Your task to perform on an android device: Go to Maps Image 0: 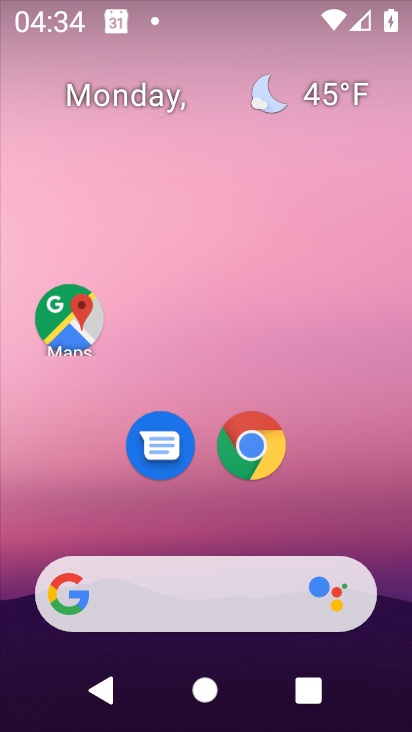
Step 0: click (82, 343)
Your task to perform on an android device: Go to Maps Image 1: 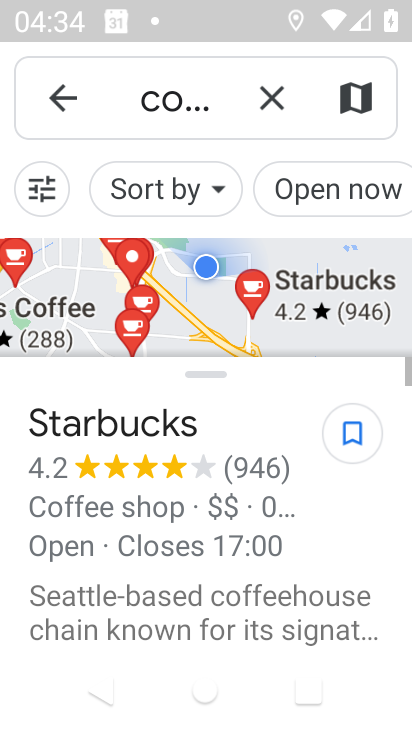
Step 1: click (29, 101)
Your task to perform on an android device: Go to Maps Image 2: 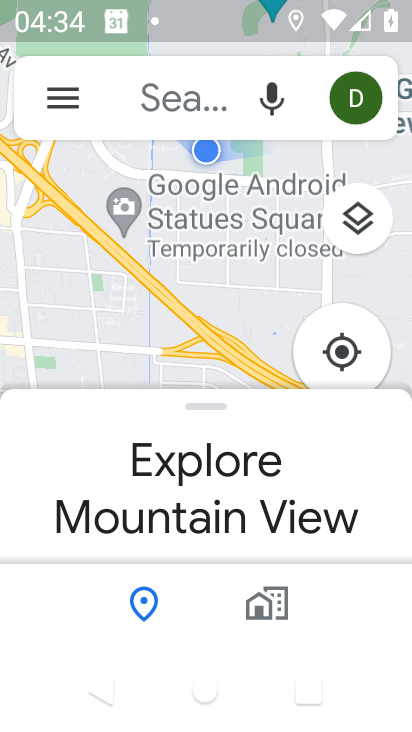
Step 2: task complete